Your task to perform on an android device: see sites visited before in the chrome app Image 0: 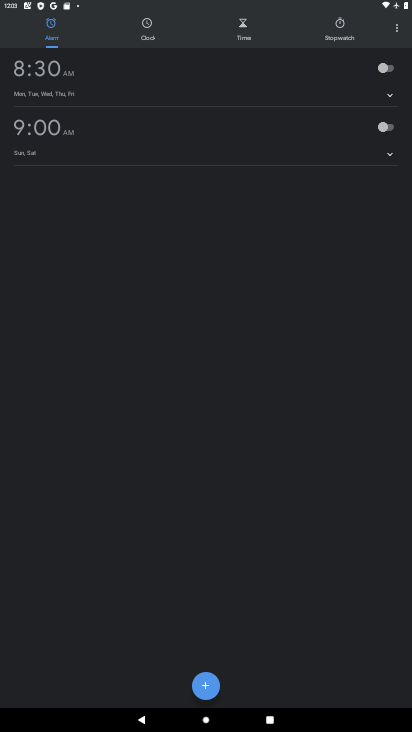
Step 0: press home button
Your task to perform on an android device: see sites visited before in the chrome app Image 1: 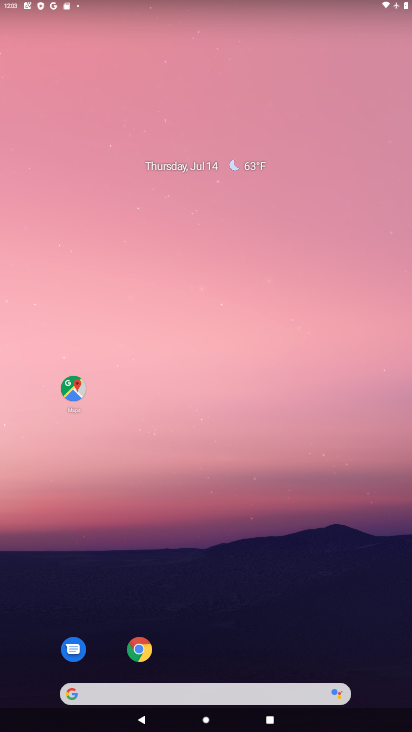
Step 1: drag from (236, 633) to (256, 172)
Your task to perform on an android device: see sites visited before in the chrome app Image 2: 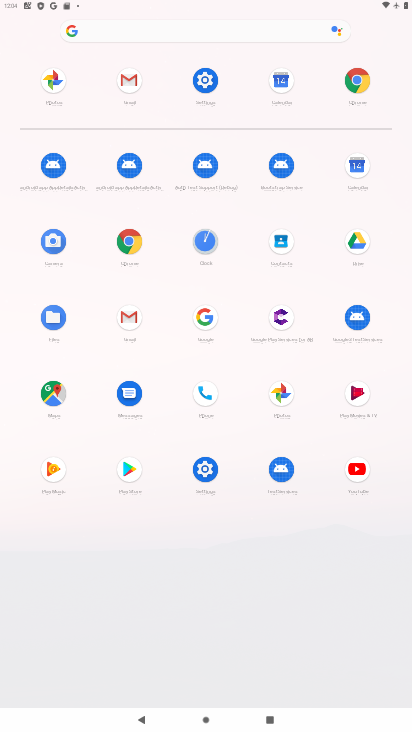
Step 2: click (350, 78)
Your task to perform on an android device: see sites visited before in the chrome app Image 3: 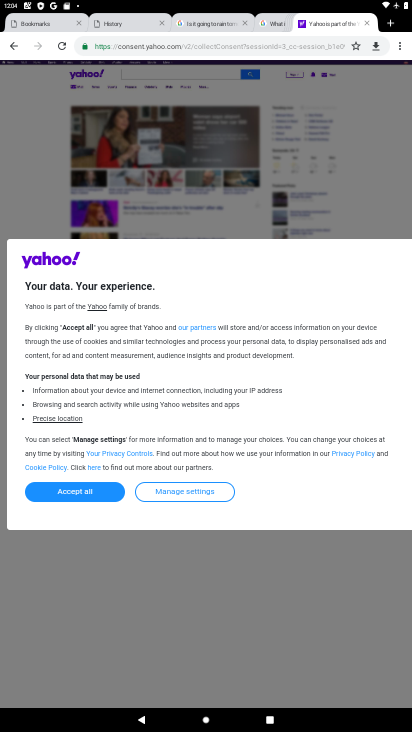
Step 3: click (398, 36)
Your task to perform on an android device: see sites visited before in the chrome app Image 4: 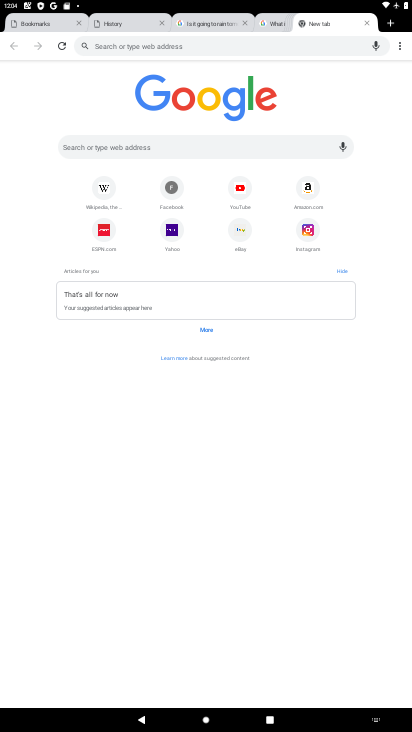
Step 4: click (407, 48)
Your task to perform on an android device: see sites visited before in the chrome app Image 5: 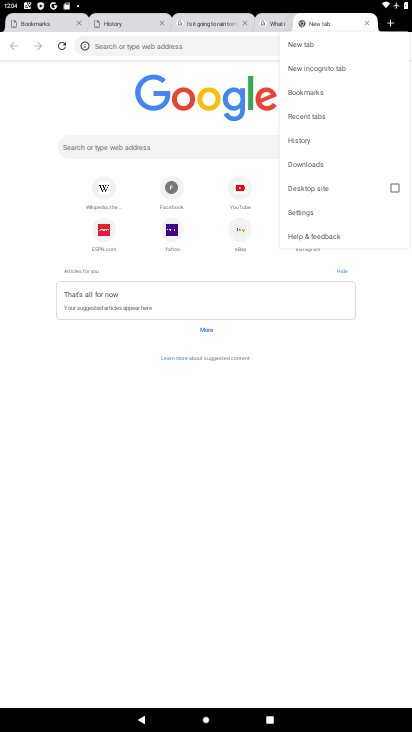
Step 5: click (316, 142)
Your task to perform on an android device: see sites visited before in the chrome app Image 6: 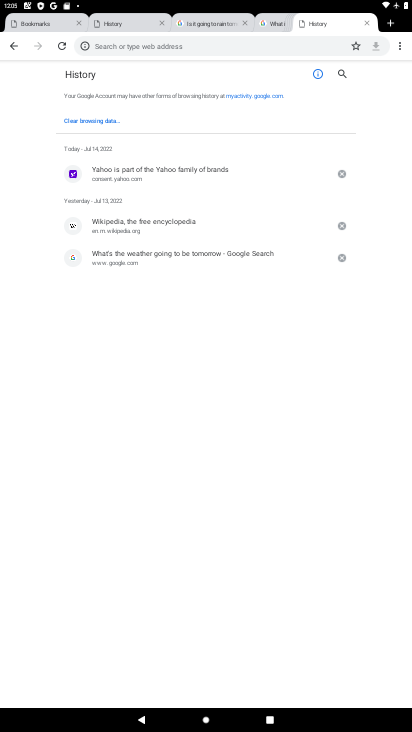
Step 6: task complete